Your task to perform on an android device: What's the weather today? Image 0: 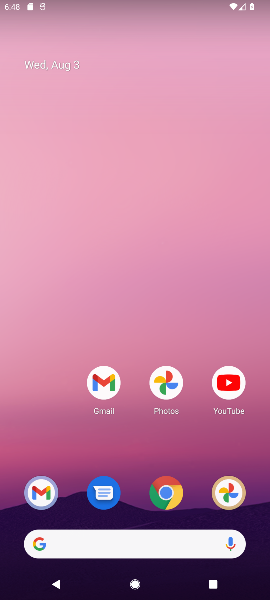
Step 0: drag from (134, 385) to (142, 114)
Your task to perform on an android device: What's the weather today? Image 1: 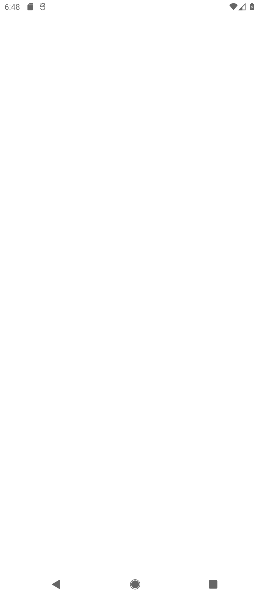
Step 1: press home button
Your task to perform on an android device: What's the weather today? Image 2: 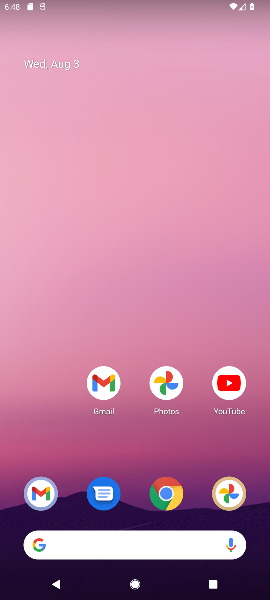
Step 2: drag from (126, 514) to (157, 108)
Your task to perform on an android device: What's the weather today? Image 3: 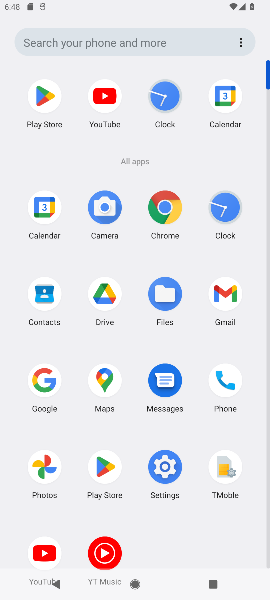
Step 3: click (173, 202)
Your task to perform on an android device: What's the weather today? Image 4: 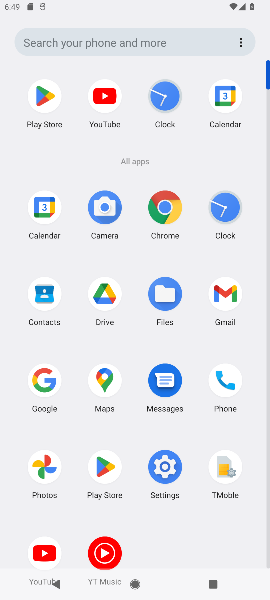
Step 4: click (156, 197)
Your task to perform on an android device: What's the weather today? Image 5: 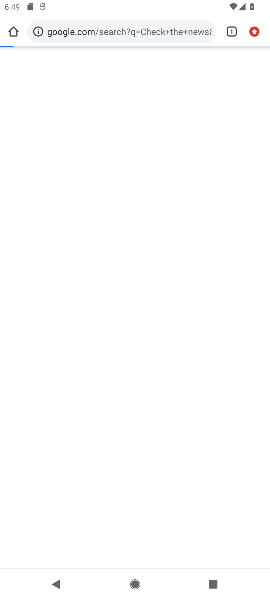
Step 5: click (264, 30)
Your task to perform on an android device: What's the weather today? Image 6: 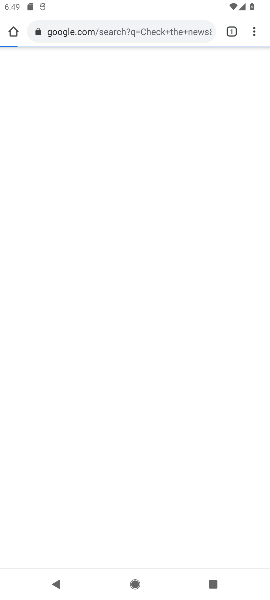
Step 6: click (254, 30)
Your task to perform on an android device: What's the weather today? Image 7: 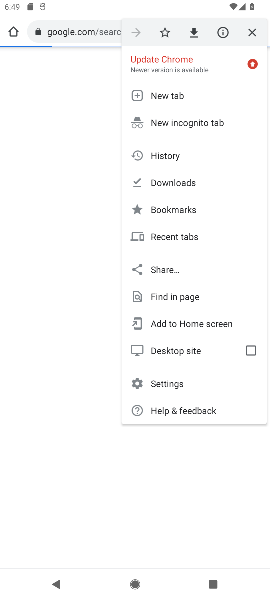
Step 7: click (168, 96)
Your task to perform on an android device: What's the weather today? Image 8: 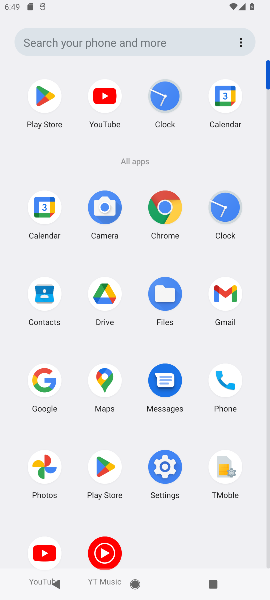
Step 8: click (168, 210)
Your task to perform on an android device: What's the weather today? Image 9: 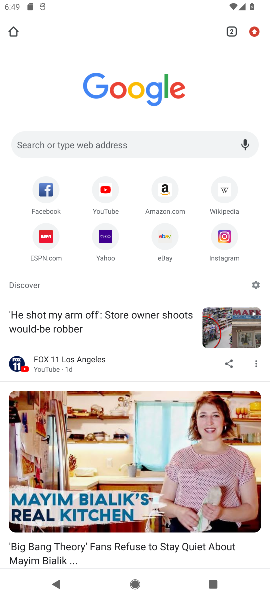
Step 9: click (106, 140)
Your task to perform on an android device: What's the weather today? Image 10: 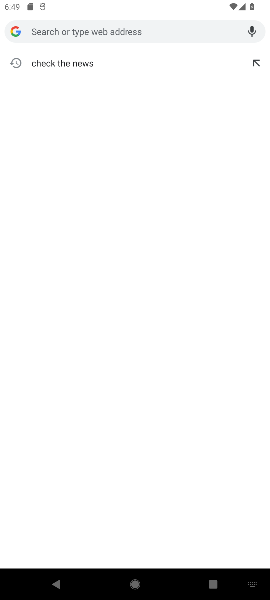
Step 10: type "Check the news "
Your task to perform on an android device: What's the weather today? Image 11: 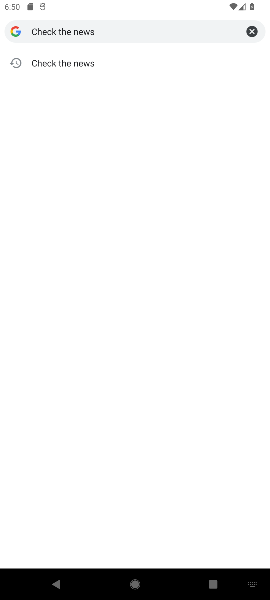
Step 11: click (250, 29)
Your task to perform on an android device: What's the weather today? Image 12: 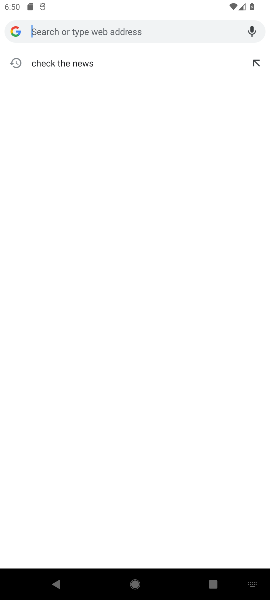
Step 12: click (153, 25)
Your task to perform on an android device: What's the weather today? Image 13: 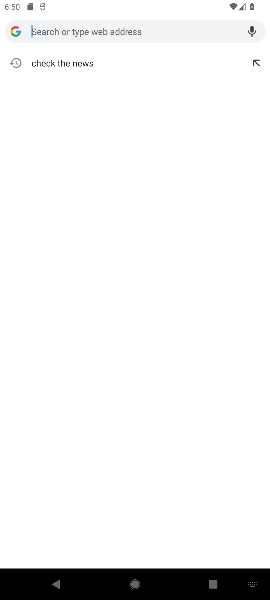
Step 13: type "What's the weather today? "
Your task to perform on an android device: What's the weather today? Image 14: 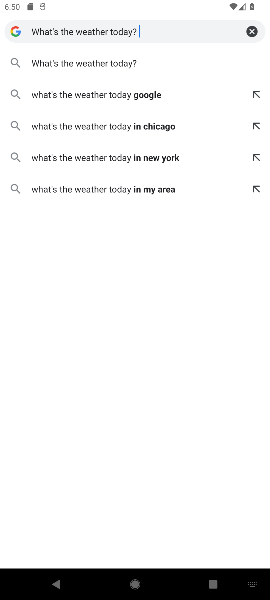
Step 14: click (114, 57)
Your task to perform on an android device: What's the weather today? Image 15: 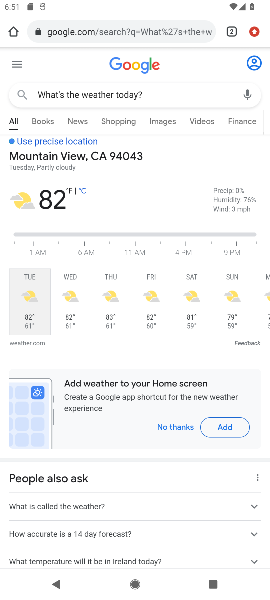
Step 15: task complete